Your task to perform on an android device: Turn on the flashlight Image 0: 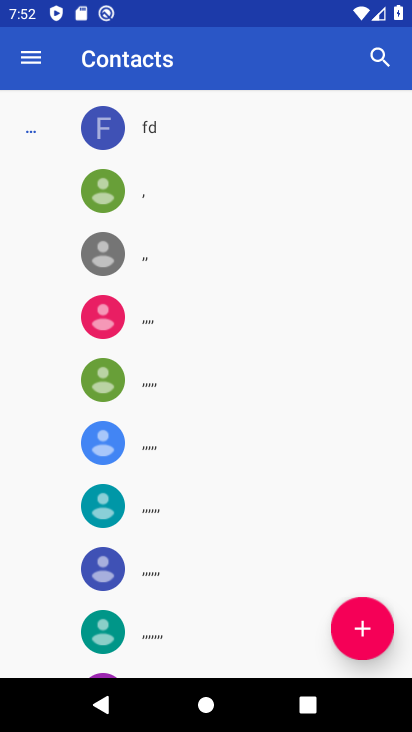
Step 0: press home button
Your task to perform on an android device: Turn on the flashlight Image 1: 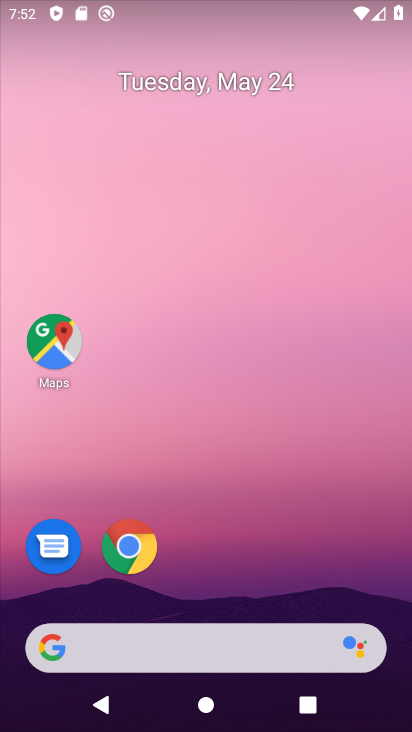
Step 1: drag from (245, 538) to (272, 29)
Your task to perform on an android device: Turn on the flashlight Image 2: 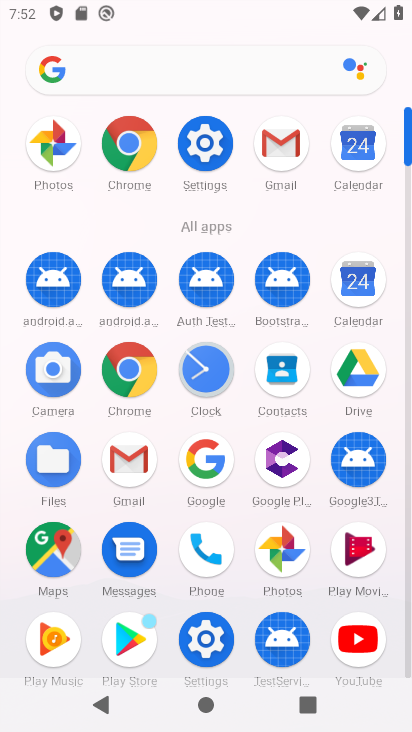
Step 2: click (213, 133)
Your task to perform on an android device: Turn on the flashlight Image 3: 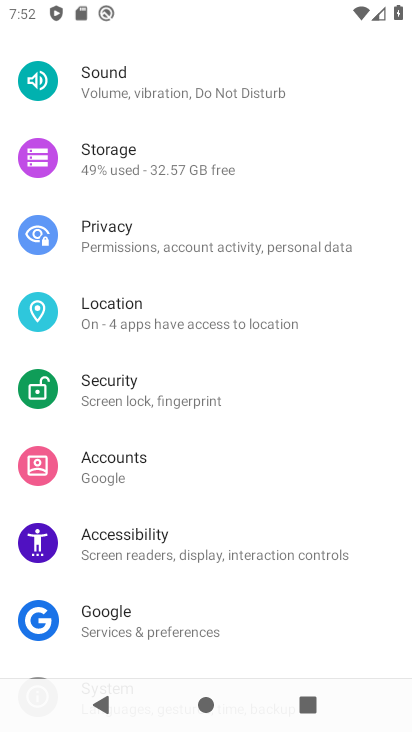
Step 3: drag from (213, 200) to (208, 726)
Your task to perform on an android device: Turn on the flashlight Image 4: 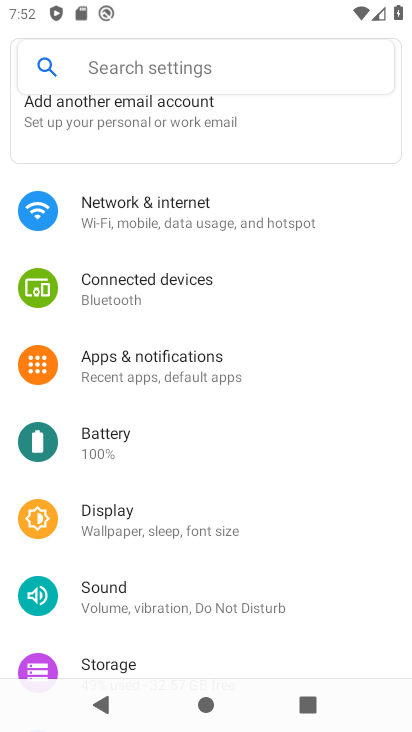
Step 4: drag from (216, 323) to (250, 612)
Your task to perform on an android device: Turn on the flashlight Image 5: 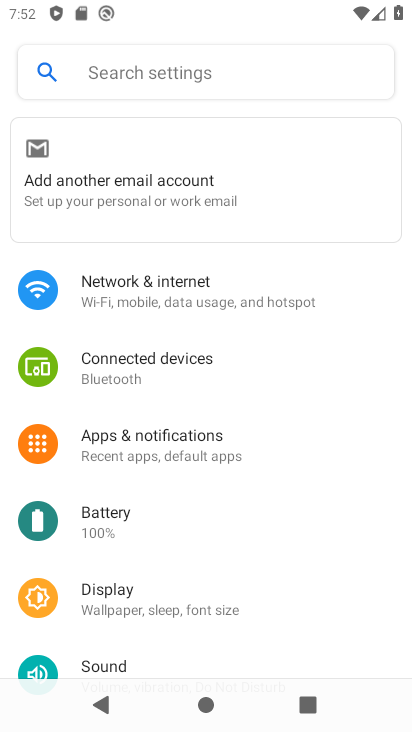
Step 5: click (267, 71)
Your task to perform on an android device: Turn on the flashlight Image 6: 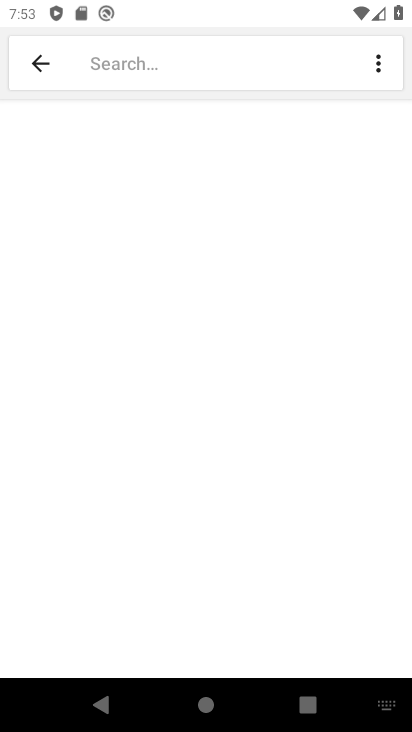
Step 6: type "Flashlight"
Your task to perform on an android device: Turn on the flashlight Image 7: 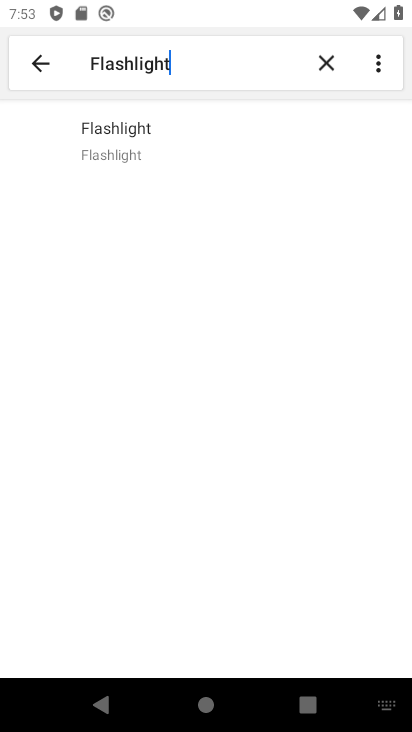
Step 7: click (131, 137)
Your task to perform on an android device: Turn on the flashlight Image 8: 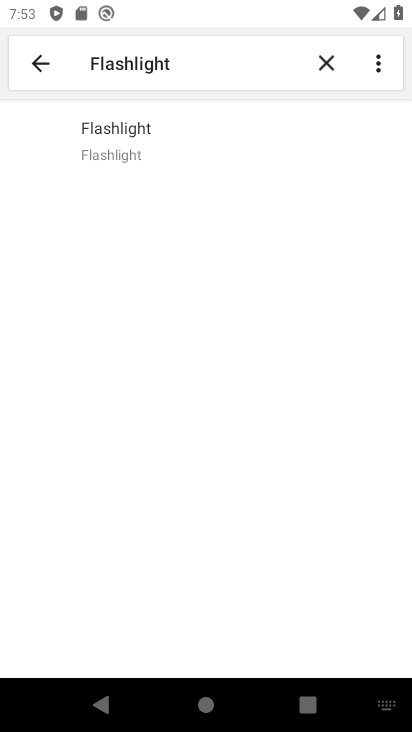
Step 8: task complete